Your task to perform on an android device: Check the weather Image 0: 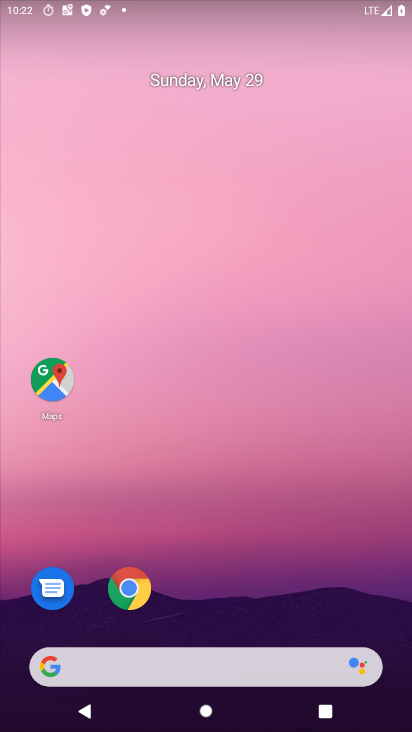
Step 0: drag from (262, 610) to (257, 125)
Your task to perform on an android device: Check the weather Image 1: 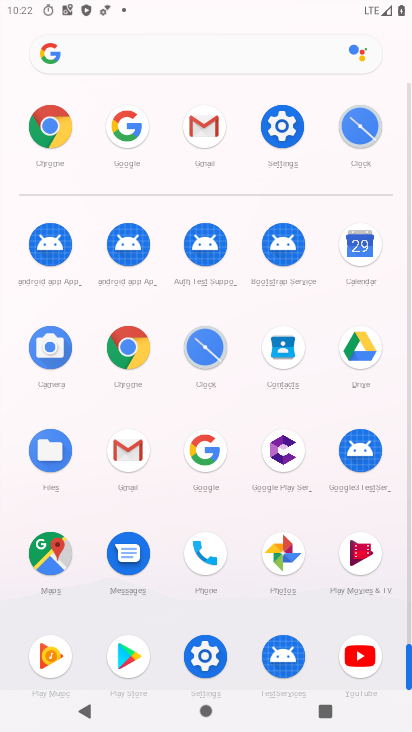
Step 1: click (200, 465)
Your task to perform on an android device: Check the weather Image 2: 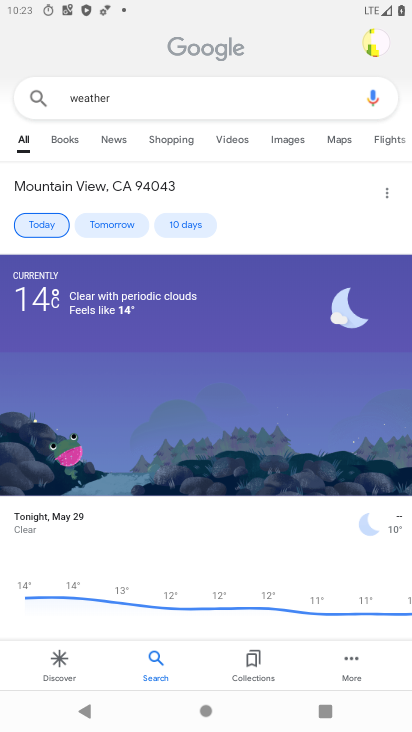
Step 2: click (175, 221)
Your task to perform on an android device: Check the weather Image 3: 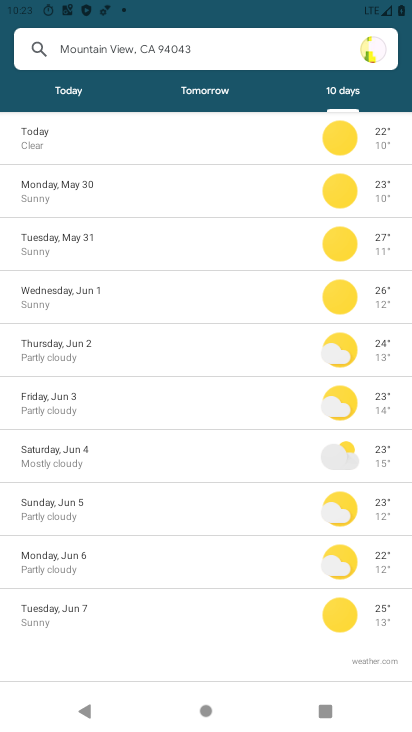
Step 3: task complete